Your task to perform on an android device: check the backup settings in the google photos Image 0: 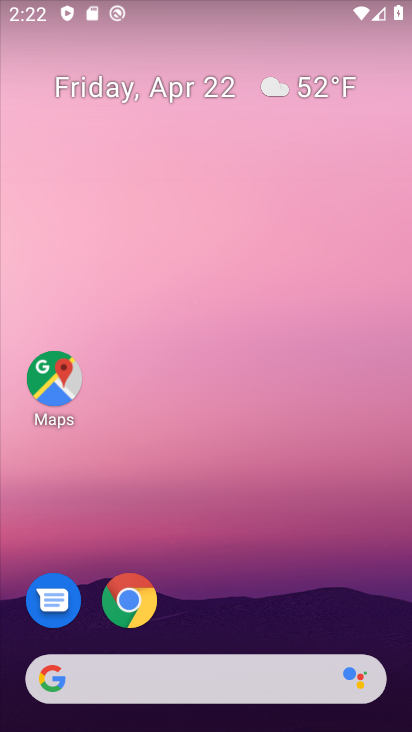
Step 0: drag from (210, 206) to (175, 5)
Your task to perform on an android device: check the backup settings in the google photos Image 1: 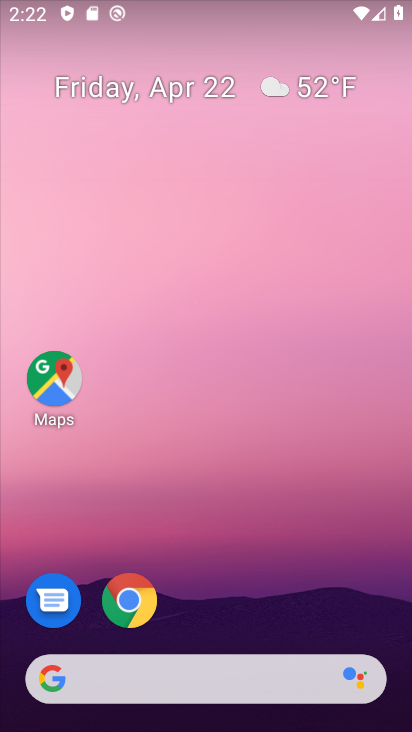
Step 1: drag from (398, 617) to (282, 33)
Your task to perform on an android device: check the backup settings in the google photos Image 2: 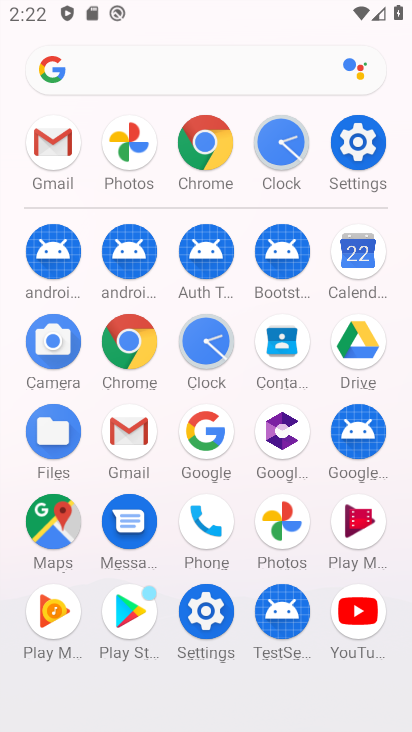
Step 2: drag from (5, 538) to (18, 305)
Your task to perform on an android device: check the backup settings in the google photos Image 3: 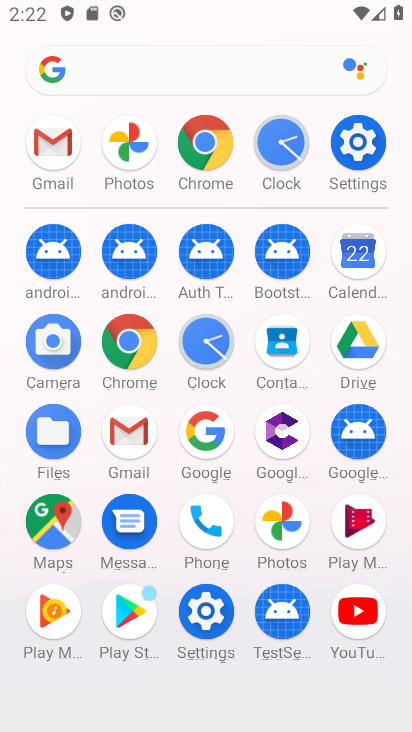
Step 3: drag from (4, 474) to (0, 307)
Your task to perform on an android device: check the backup settings in the google photos Image 4: 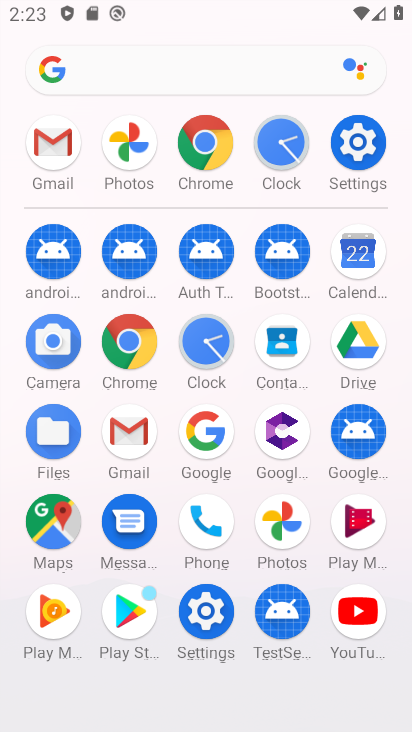
Step 4: click (280, 521)
Your task to perform on an android device: check the backup settings in the google photos Image 5: 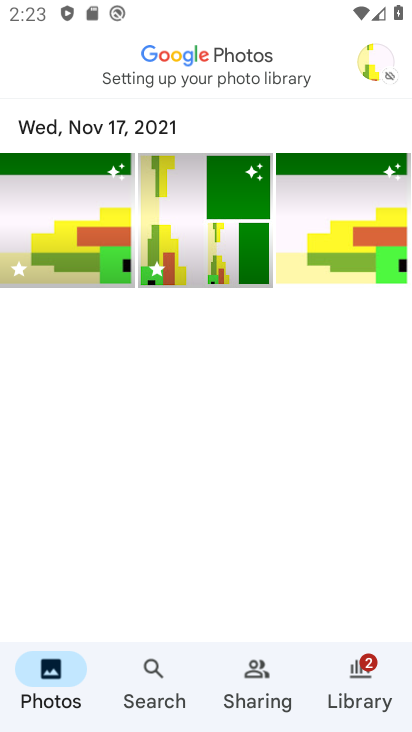
Step 5: click (369, 55)
Your task to perform on an android device: check the backup settings in the google photos Image 6: 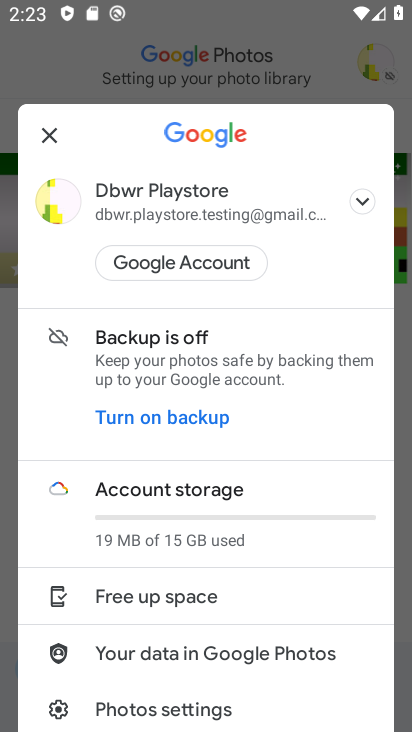
Step 6: drag from (296, 552) to (294, 281)
Your task to perform on an android device: check the backup settings in the google photos Image 7: 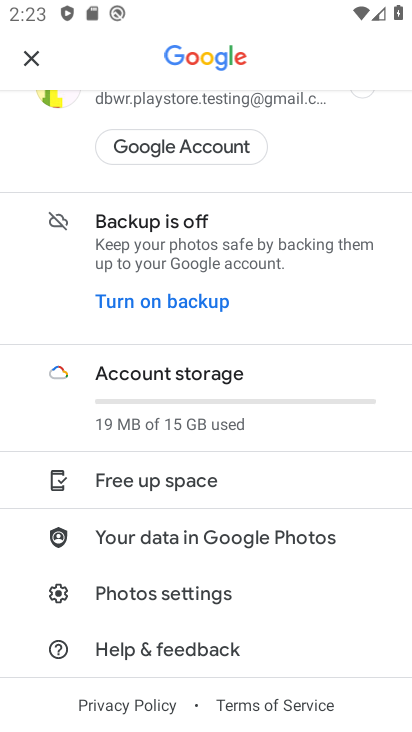
Step 7: click (164, 586)
Your task to perform on an android device: check the backup settings in the google photos Image 8: 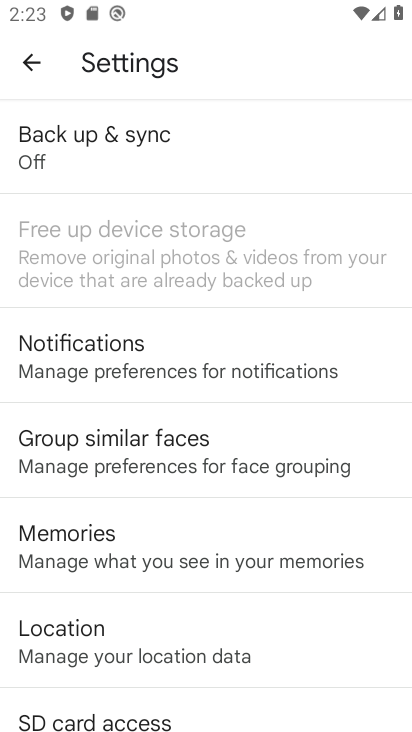
Step 8: click (163, 152)
Your task to perform on an android device: check the backup settings in the google photos Image 9: 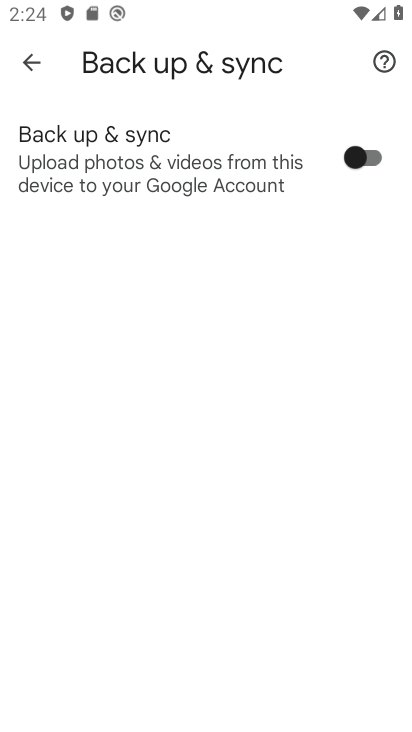
Step 9: click (41, 58)
Your task to perform on an android device: check the backup settings in the google photos Image 10: 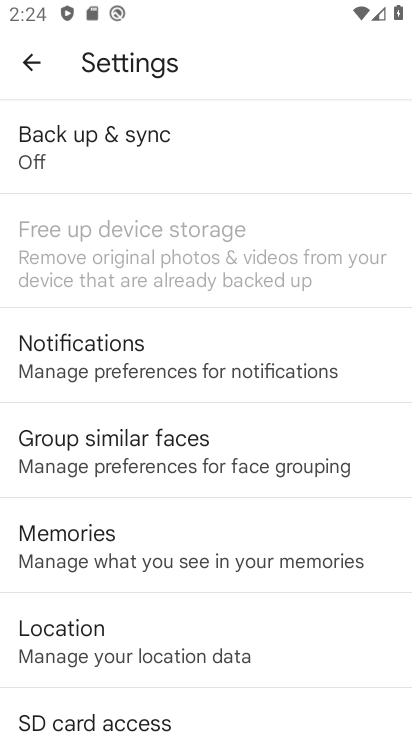
Step 10: task complete